Your task to perform on an android device: toggle notification dots Image 0: 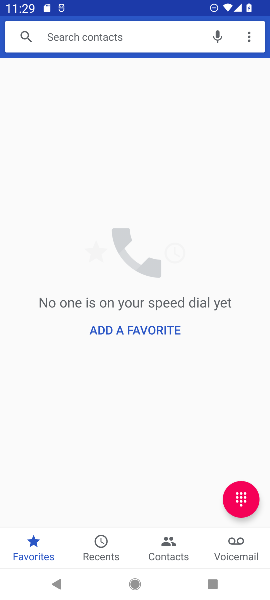
Step 0: press back button
Your task to perform on an android device: toggle notification dots Image 1: 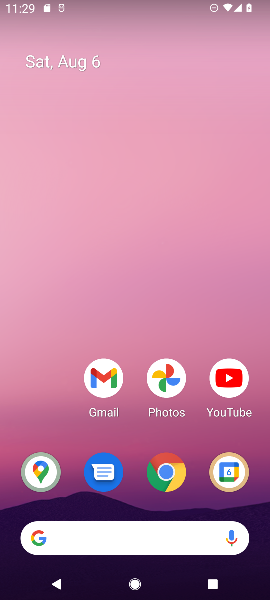
Step 1: drag from (123, 470) to (93, 98)
Your task to perform on an android device: toggle notification dots Image 2: 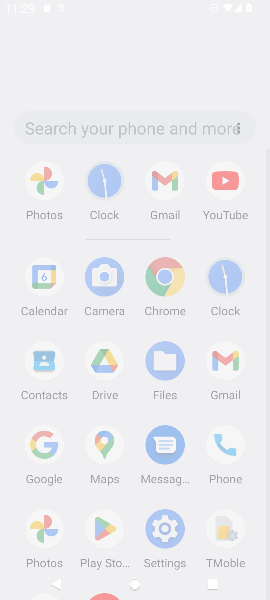
Step 2: drag from (139, 497) to (157, 177)
Your task to perform on an android device: toggle notification dots Image 3: 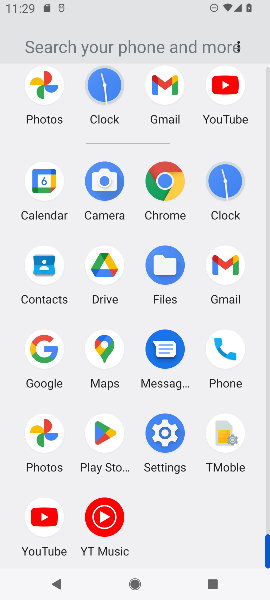
Step 3: click (177, 425)
Your task to perform on an android device: toggle notification dots Image 4: 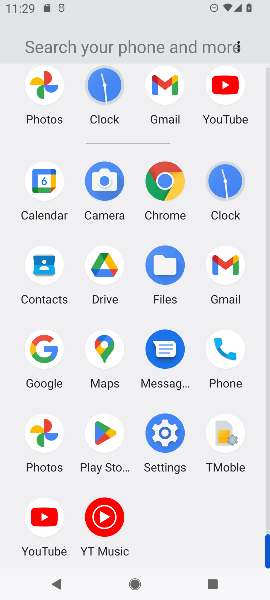
Step 4: click (174, 427)
Your task to perform on an android device: toggle notification dots Image 5: 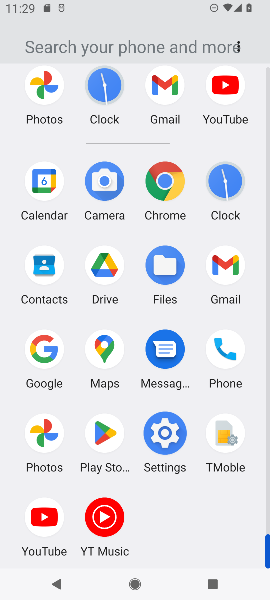
Step 5: click (168, 452)
Your task to perform on an android device: toggle notification dots Image 6: 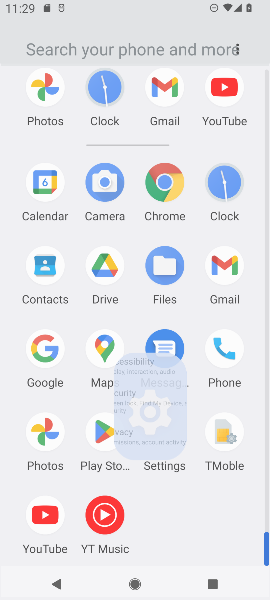
Step 6: click (170, 434)
Your task to perform on an android device: toggle notification dots Image 7: 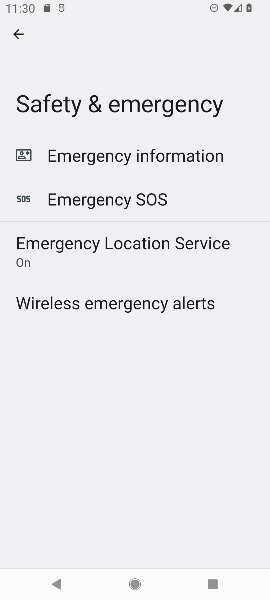
Step 7: click (24, 18)
Your task to perform on an android device: toggle notification dots Image 8: 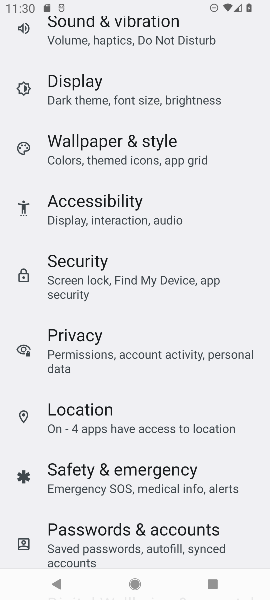
Step 8: drag from (74, 130) to (105, 465)
Your task to perform on an android device: toggle notification dots Image 9: 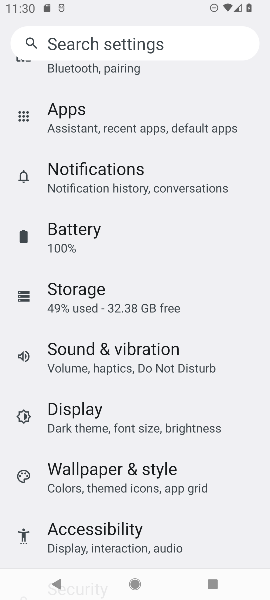
Step 9: drag from (85, 336) to (107, 487)
Your task to perform on an android device: toggle notification dots Image 10: 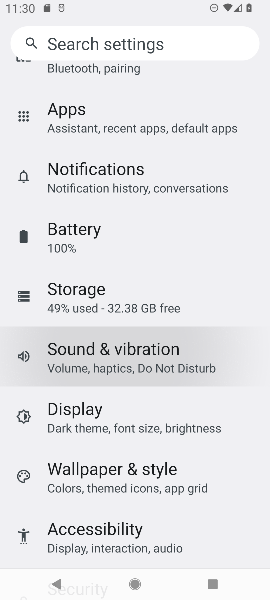
Step 10: drag from (88, 353) to (114, 488)
Your task to perform on an android device: toggle notification dots Image 11: 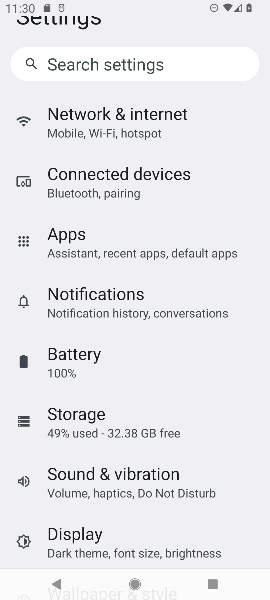
Step 11: click (78, 174)
Your task to perform on an android device: toggle notification dots Image 12: 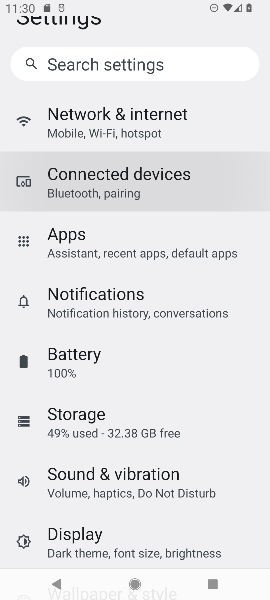
Step 12: click (78, 173)
Your task to perform on an android device: toggle notification dots Image 13: 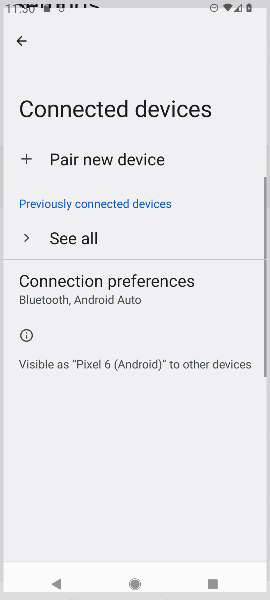
Step 13: click (78, 173)
Your task to perform on an android device: toggle notification dots Image 14: 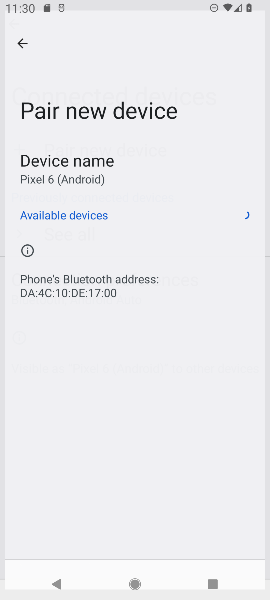
Step 14: click (18, 19)
Your task to perform on an android device: toggle notification dots Image 15: 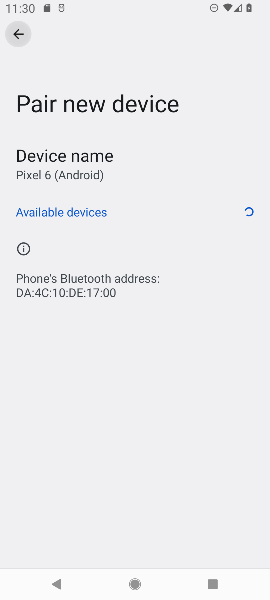
Step 15: click (15, 43)
Your task to perform on an android device: toggle notification dots Image 16: 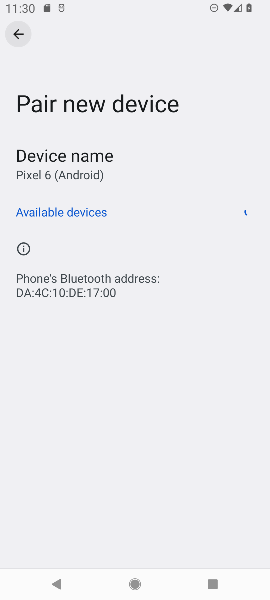
Step 16: click (15, 43)
Your task to perform on an android device: toggle notification dots Image 17: 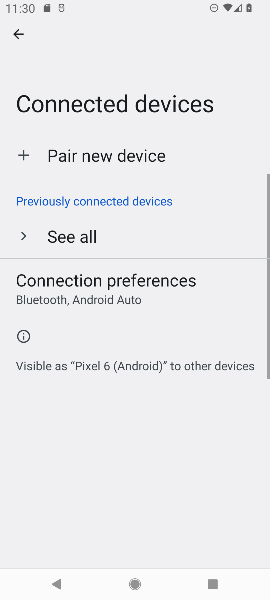
Step 17: click (2, 15)
Your task to perform on an android device: toggle notification dots Image 18: 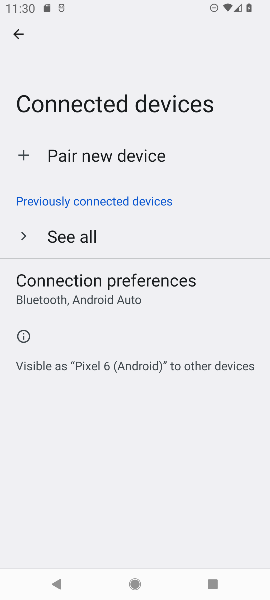
Step 18: click (15, 21)
Your task to perform on an android device: toggle notification dots Image 19: 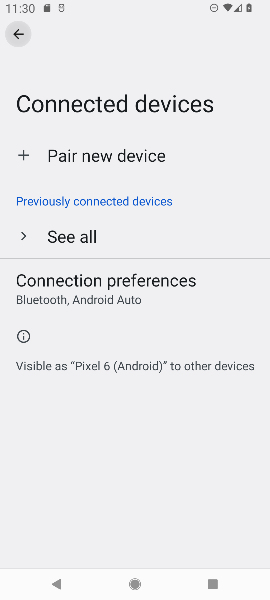
Step 19: click (21, 28)
Your task to perform on an android device: toggle notification dots Image 20: 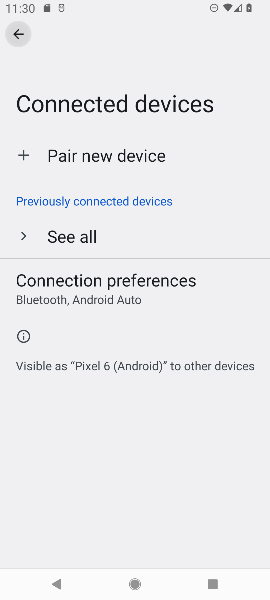
Step 20: click (14, 32)
Your task to perform on an android device: toggle notification dots Image 21: 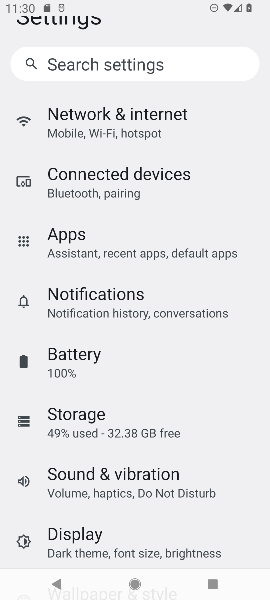
Step 21: click (11, 38)
Your task to perform on an android device: toggle notification dots Image 22: 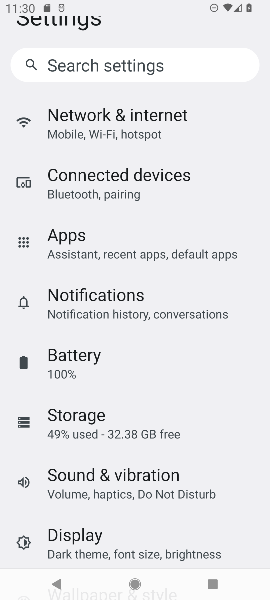
Step 22: click (84, 314)
Your task to perform on an android device: toggle notification dots Image 23: 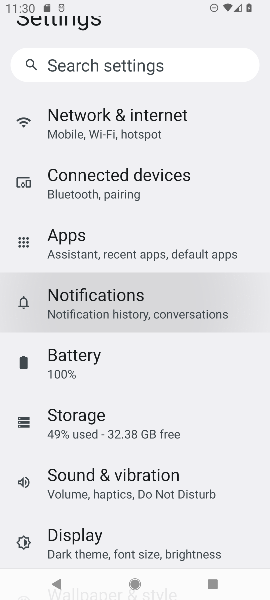
Step 23: click (86, 310)
Your task to perform on an android device: toggle notification dots Image 24: 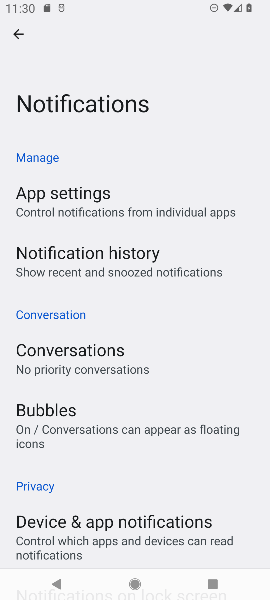
Step 24: drag from (78, 397) to (75, 169)
Your task to perform on an android device: toggle notification dots Image 25: 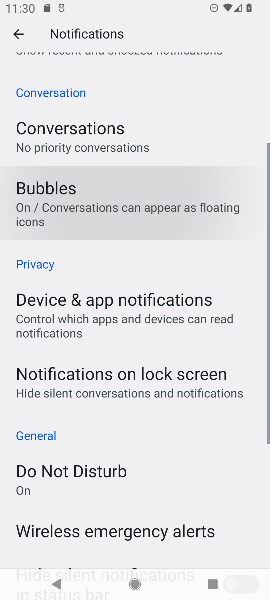
Step 25: drag from (134, 436) to (134, 131)
Your task to perform on an android device: toggle notification dots Image 26: 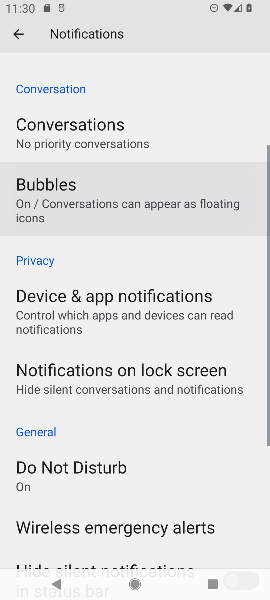
Step 26: drag from (167, 452) to (143, 224)
Your task to perform on an android device: toggle notification dots Image 27: 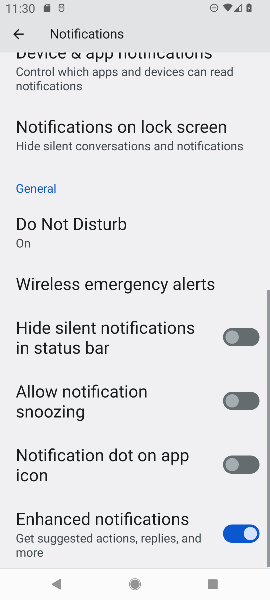
Step 27: drag from (143, 458) to (169, 175)
Your task to perform on an android device: toggle notification dots Image 28: 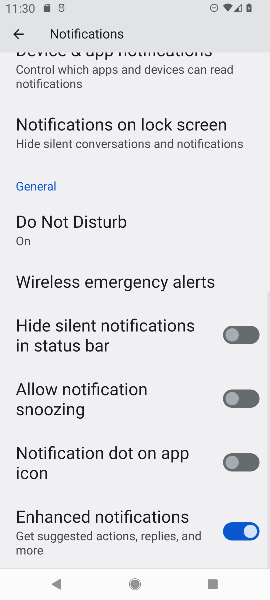
Step 28: click (230, 461)
Your task to perform on an android device: toggle notification dots Image 29: 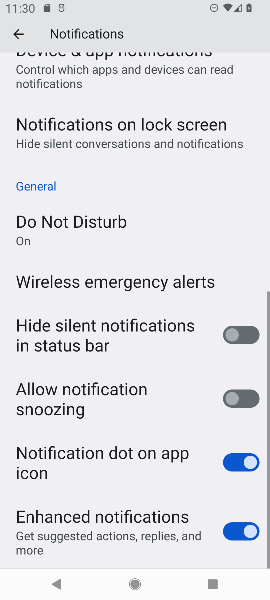
Step 29: task complete